Your task to perform on an android device: Open CNN.com Image 0: 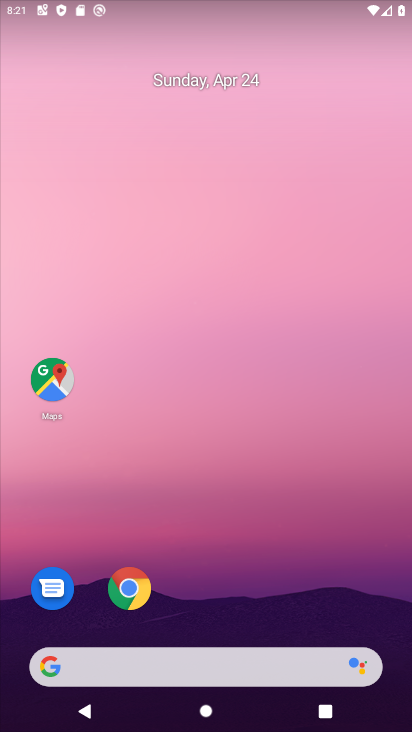
Step 0: click (126, 584)
Your task to perform on an android device: Open CNN.com Image 1: 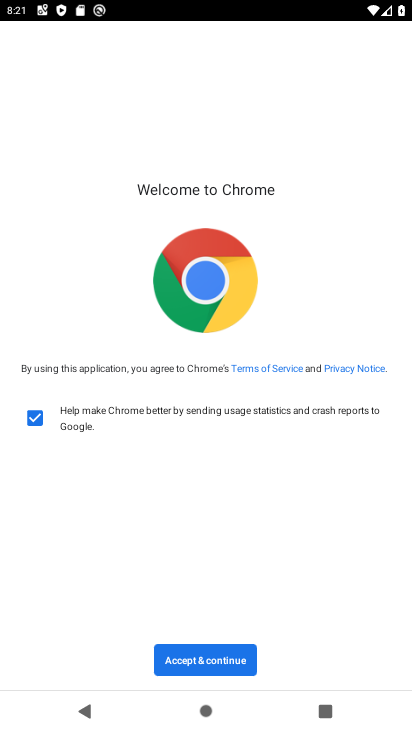
Step 1: click (219, 657)
Your task to perform on an android device: Open CNN.com Image 2: 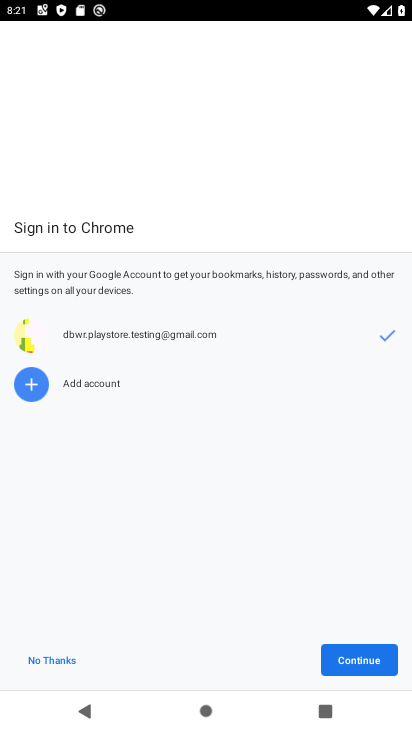
Step 2: click (345, 660)
Your task to perform on an android device: Open CNN.com Image 3: 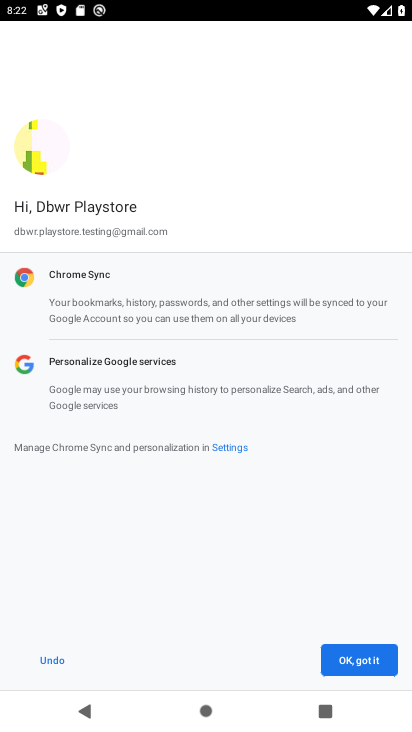
Step 3: click (345, 660)
Your task to perform on an android device: Open CNN.com Image 4: 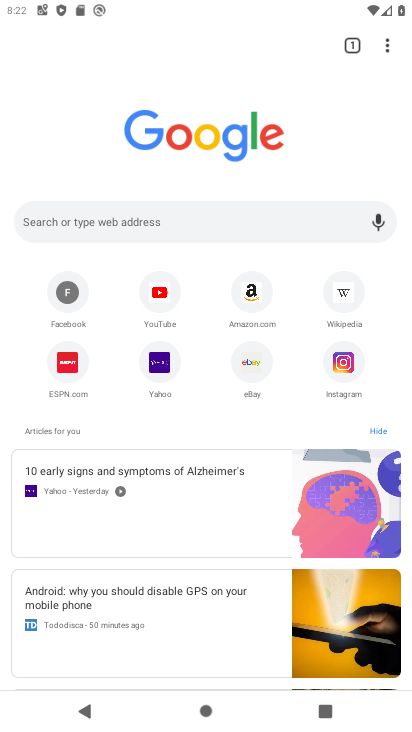
Step 4: click (179, 229)
Your task to perform on an android device: Open CNN.com Image 5: 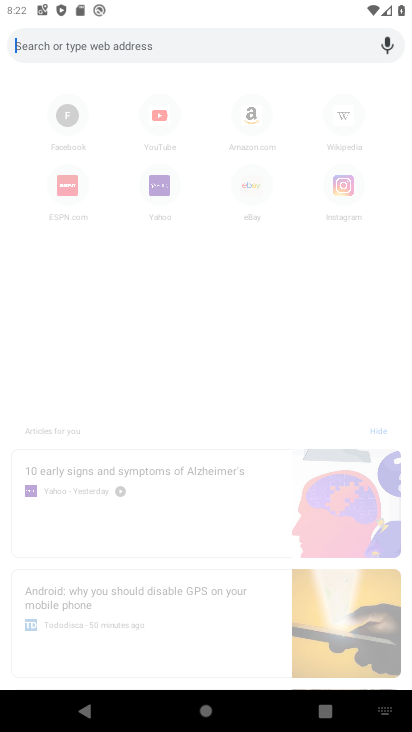
Step 5: type "CNN.com"
Your task to perform on an android device: Open CNN.com Image 6: 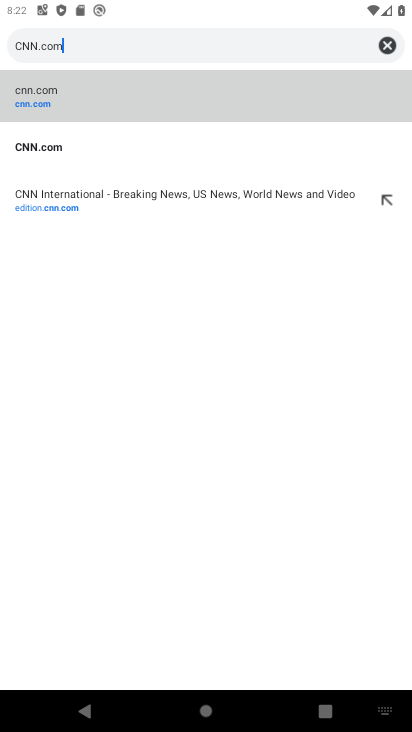
Step 6: click (36, 147)
Your task to perform on an android device: Open CNN.com Image 7: 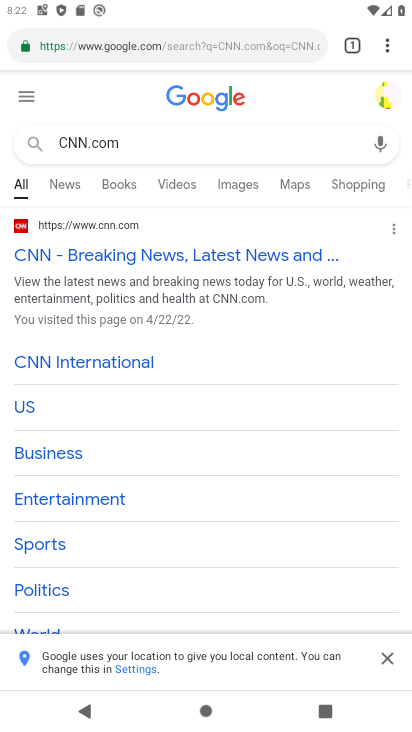
Step 7: task complete